Your task to perform on an android device: Go to Android settings Image 0: 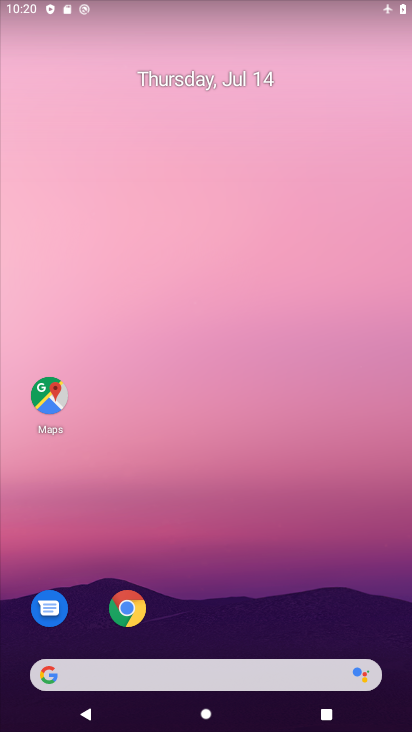
Step 0: drag from (216, 622) to (267, 108)
Your task to perform on an android device: Go to Android settings Image 1: 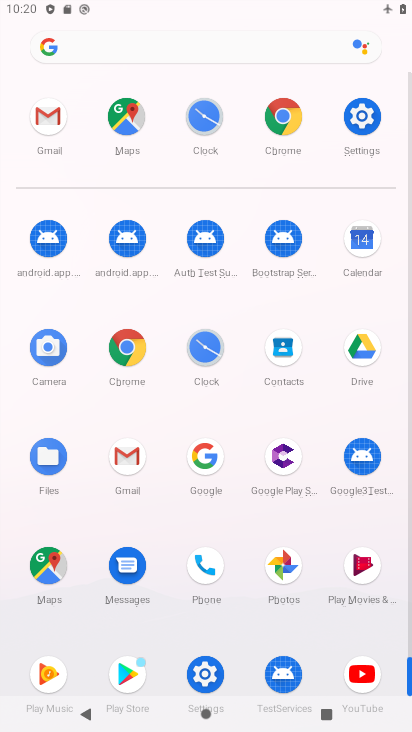
Step 1: click (208, 676)
Your task to perform on an android device: Go to Android settings Image 2: 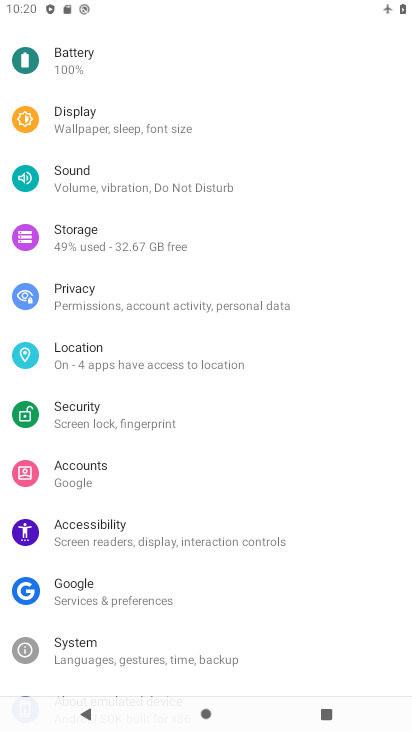
Step 2: drag from (156, 577) to (212, 141)
Your task to perform on an android device: Go to Android settings Image 3: 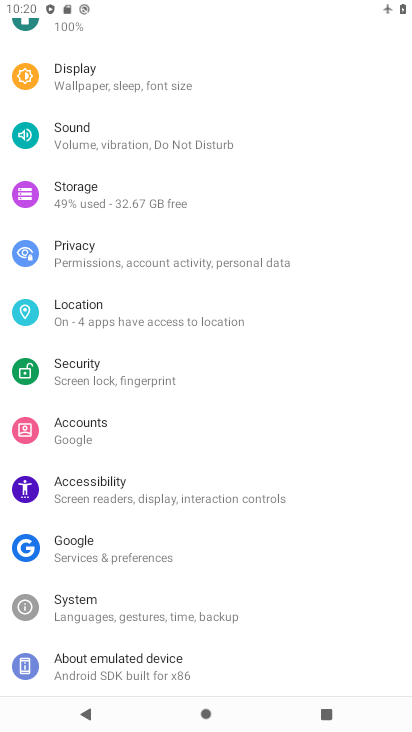
Step 3: click (129, 666)
Your task to perform on an android device: Go to Android settings Image 4: 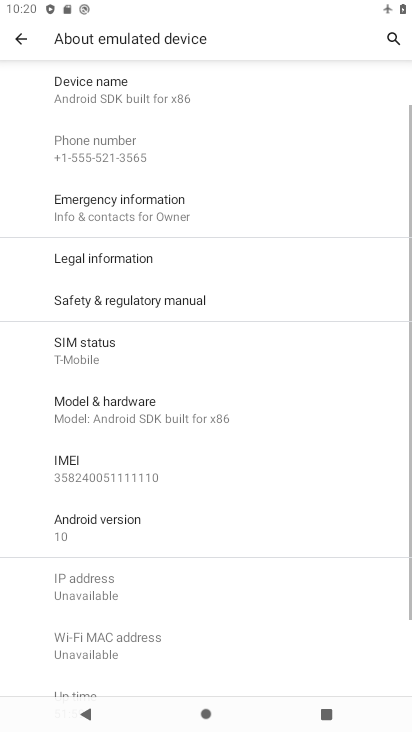
Step 4: click (122, 536)
Your task to perform on an android device: Go to Android settings Image 5: 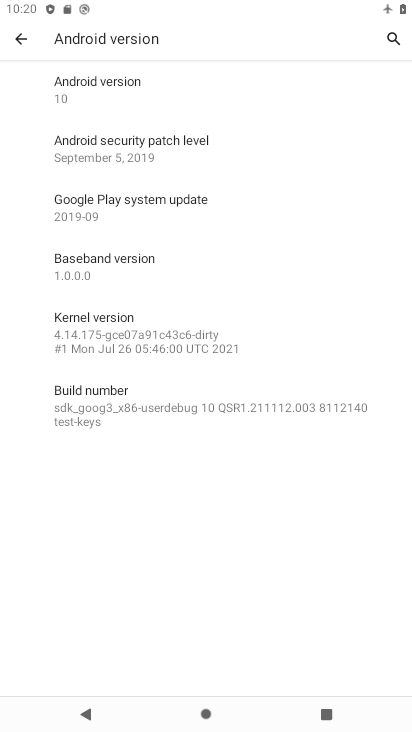
Step 5: task complete